Your task to perform on an android device: Open internet settings Image 0: 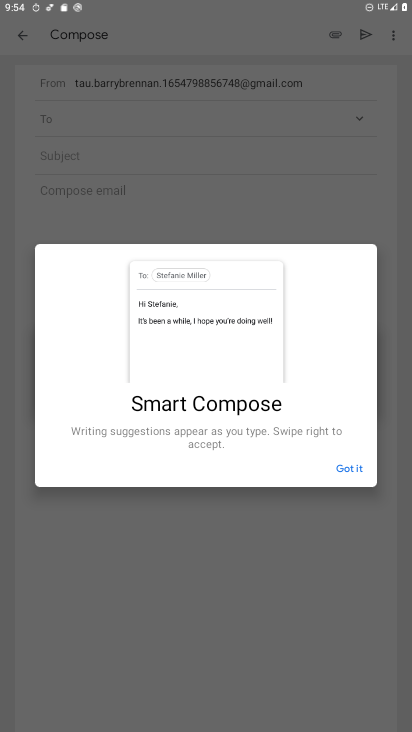
Step 0: press home button
Your task to perform on an android device: Open internet settings Image 1: 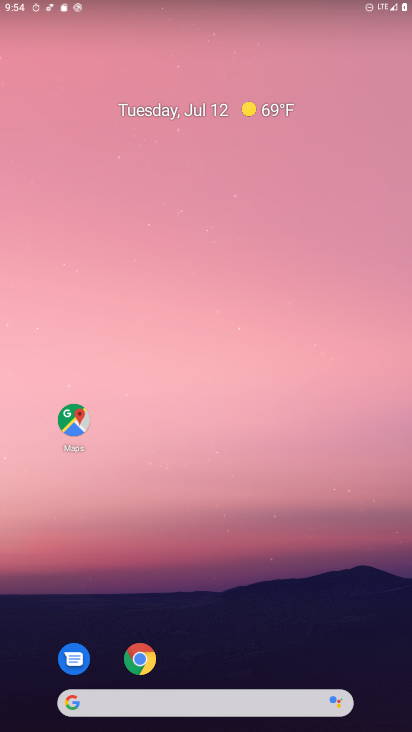
Step 1: drag from (247, 712) to (262, 179)
Your task to perform on an android device: Open internet settings Image 2: 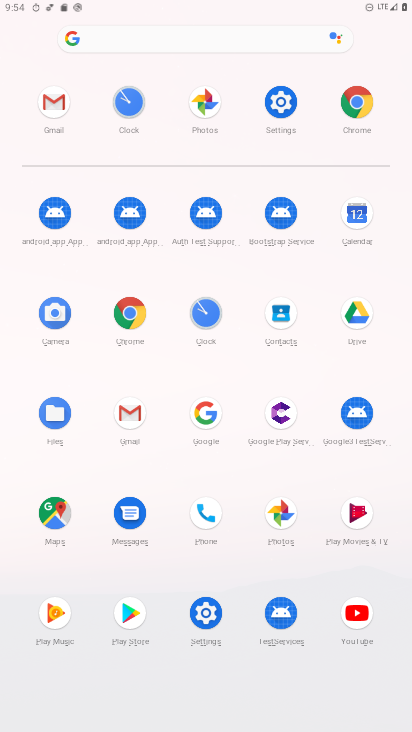
Step 2: click (280, 101)
Your task to perform on an android device: Open internet settings Image 3: 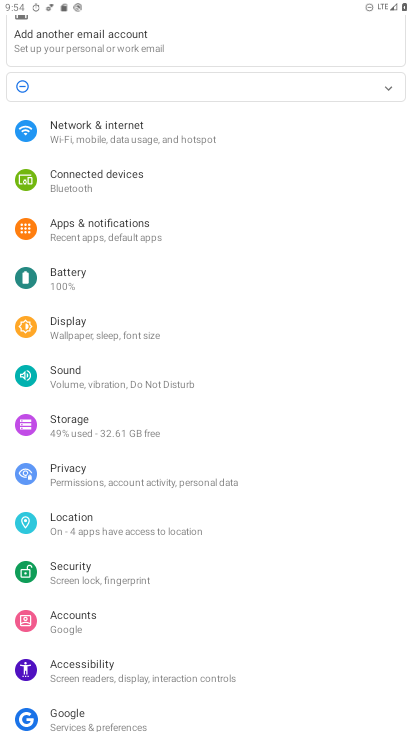
Step 3: click (110, 131)
Your task to perform on an android device: Open internet settings Image 4: 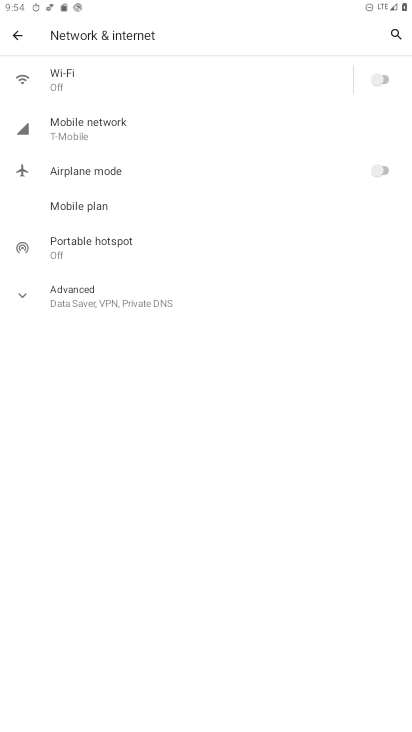
Step 4: task complete